Your task to perform on an android device: turn on the 24-hour format for clock Image 0: 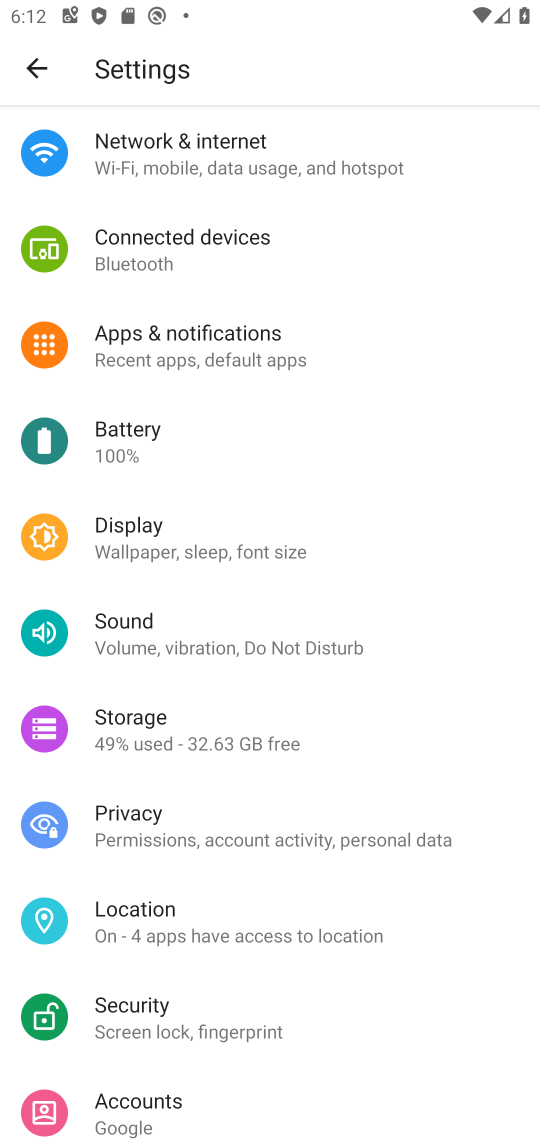
Step 0: press home button
Your task to perform on an android device: turn on the 24-hour format for clock Image 1: 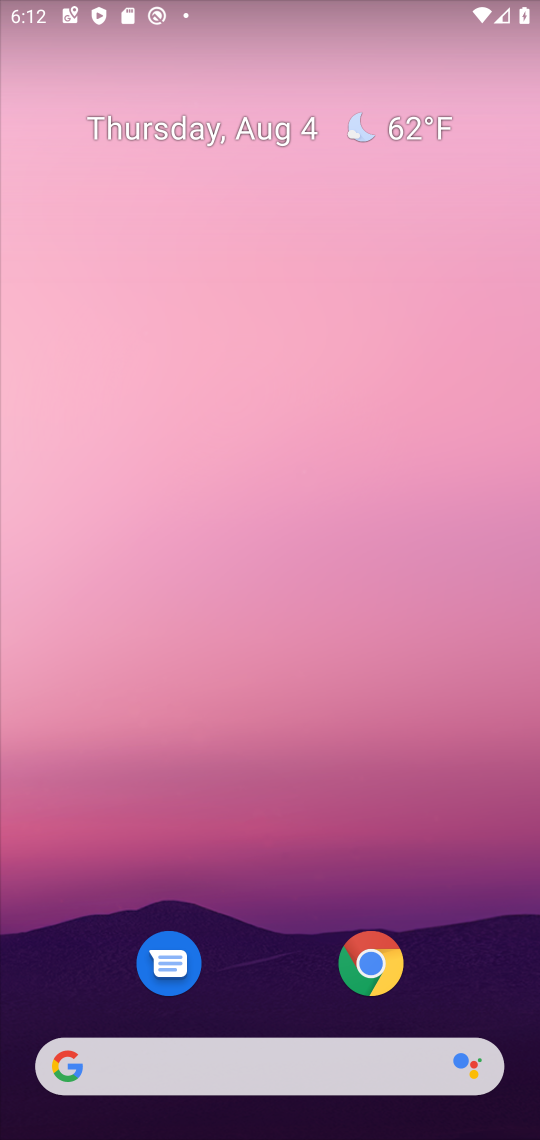
Step 1: drag from (240, 882) to (249, 138)
Your task to perform on an android device: turn on the 24-hour format for clock Image 2: 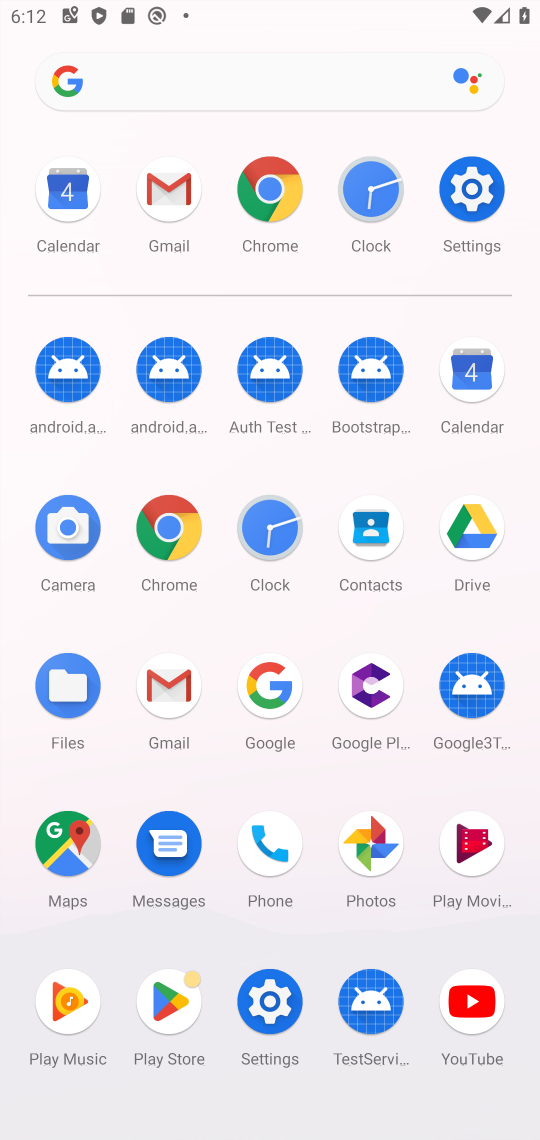
Step 2: click (371, 181)
Your task to perform on an android device: turn on the 24-hour format for clock Image 3: 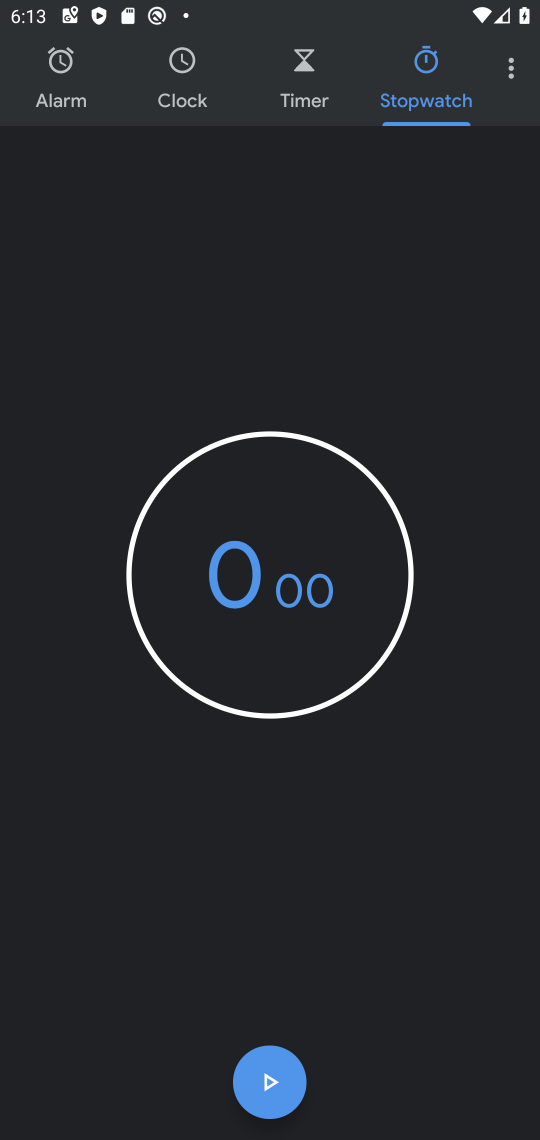
Step 3: click (512, 64)
Your task to perform on an android device: turn on the 24-hour format for clock Image 4: 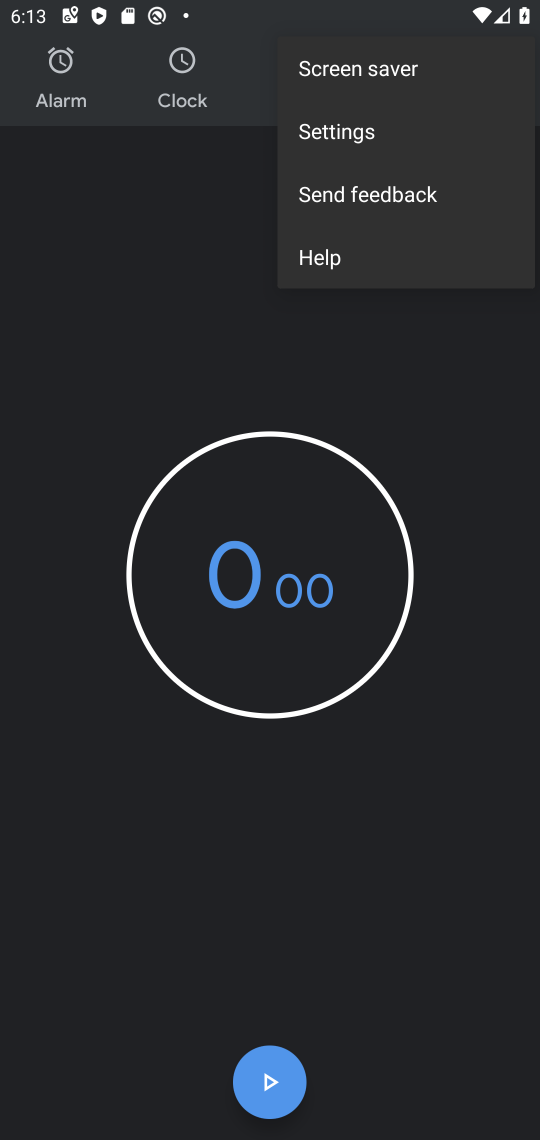
Step 4: click (352, 140)
Your task to perform on an android device: turn on the 24-hour format for clock Image 5: 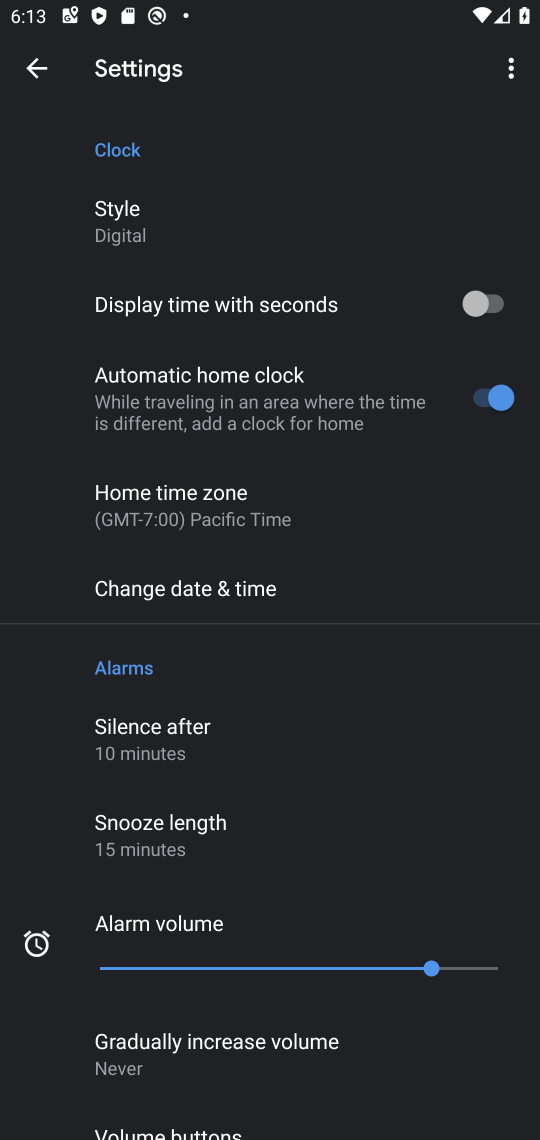
Step 5: click (209, 577)
Your task to perform on an android device: turn on the 24-hour format for clock Image 6: 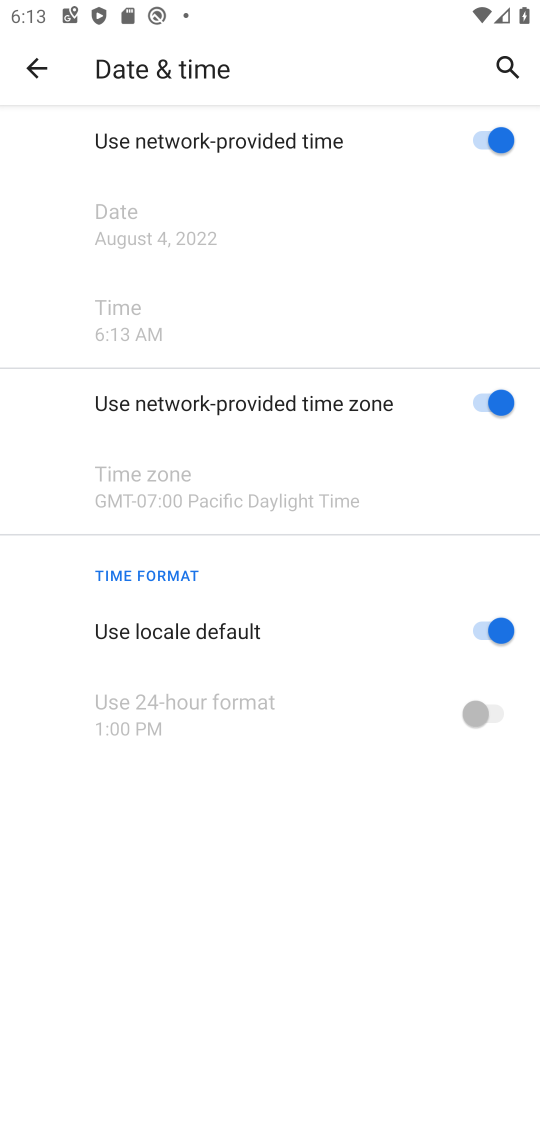
Step 6: click (487, 703)
Your task to perform on an android device: turn on the 24-hour format for clock Image 7: 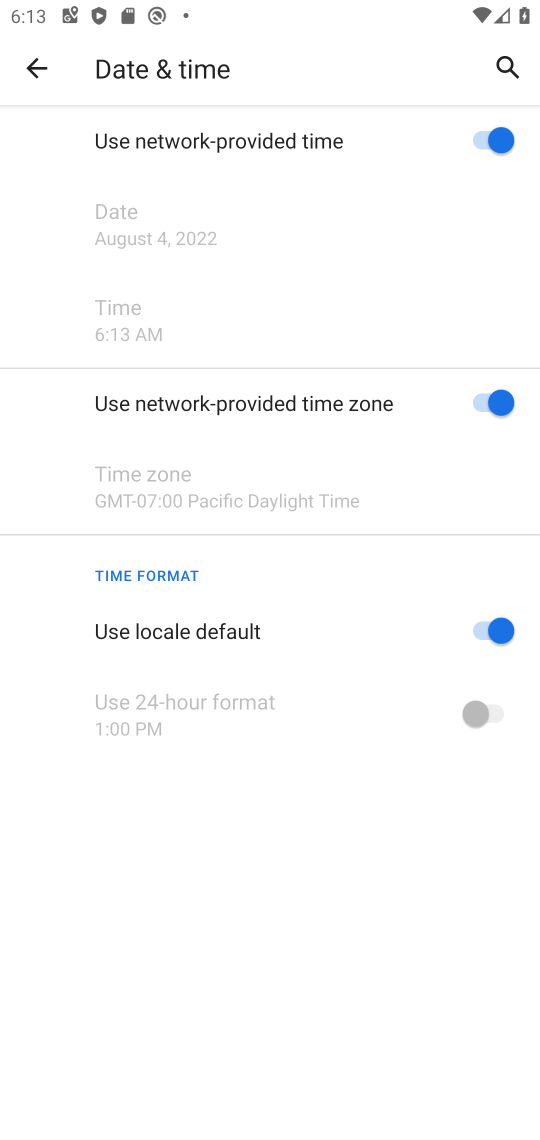
Step 7: click (493, 628)
Your task to perform on an android device: turn on the 24-hour format for clock Image 8: 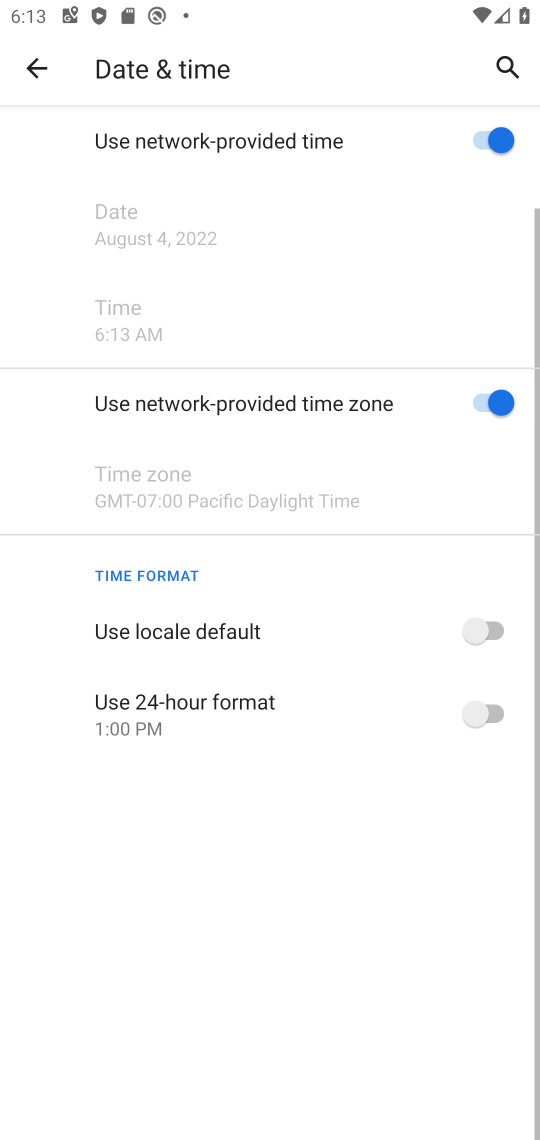
Step 8: click (474, 706)
Your task to perform on an android device: turn on the 24-hour format for clock Image 9: 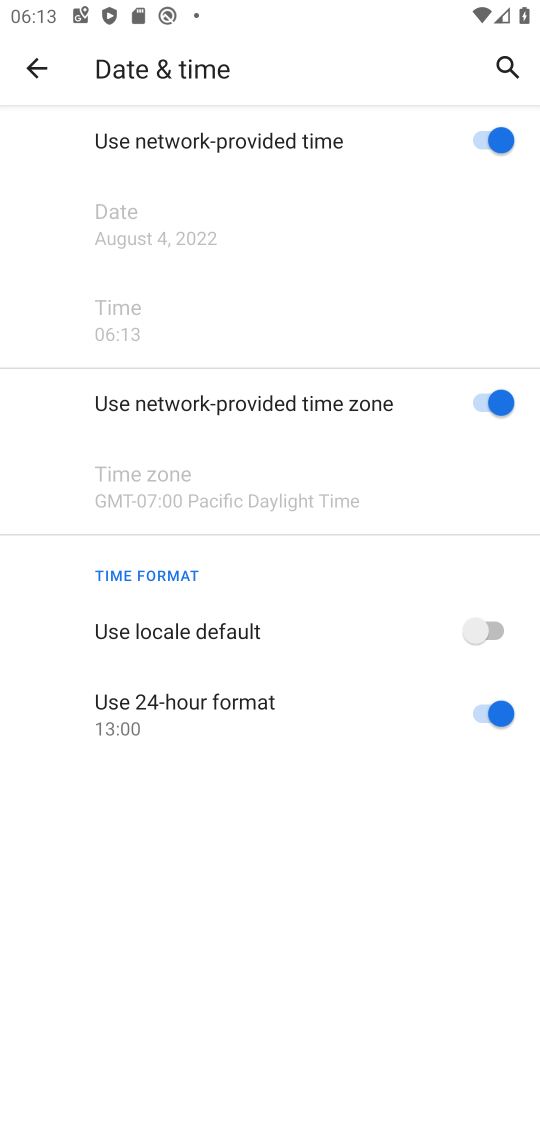
Step 9: task complete